Your task to perform on an android device: turn pop-ups on in chrome Image 0: 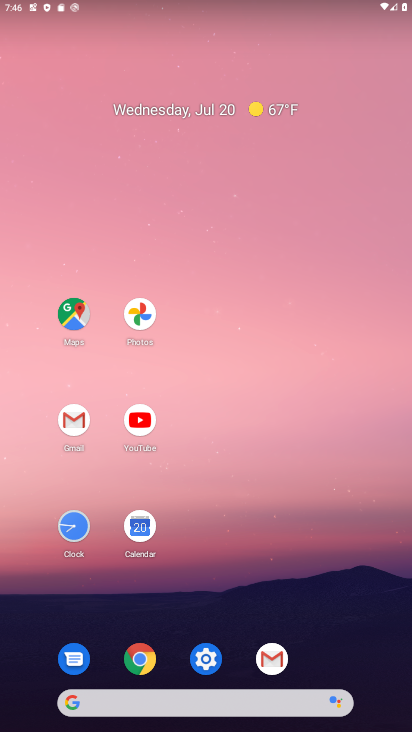
Step 0: click (145, 656)
Your task to perform on an android device: turn pop-ups on in chrome Image 1: 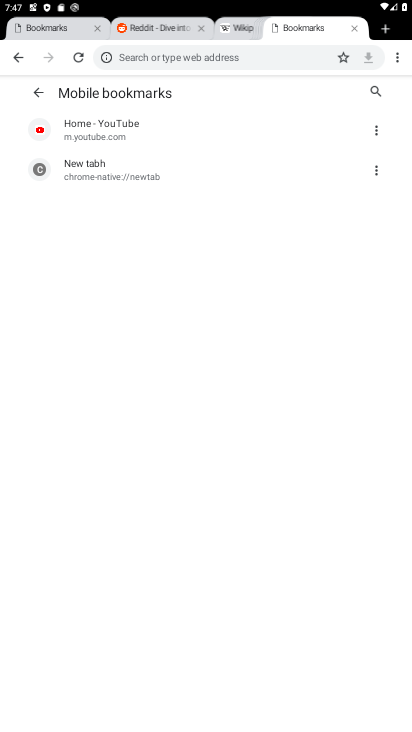
Step 1: click (395, 58)
Your task to perform on an android device: turn pop-ups on in chrome Image 2: 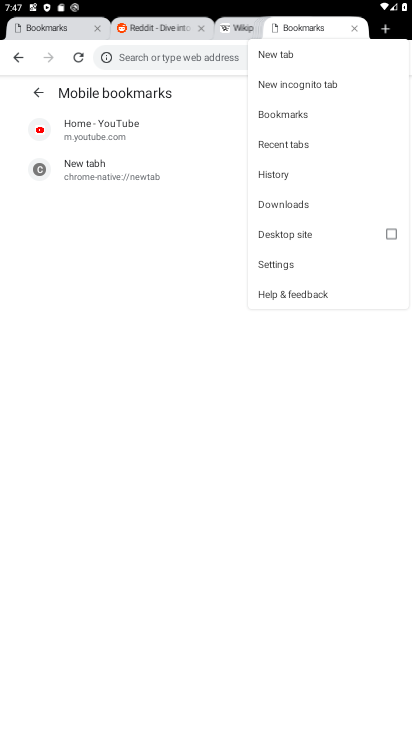
Step 2: click (280, 262)
Your task to perform on an android device: turn pop-ups on in chrome Image 3: 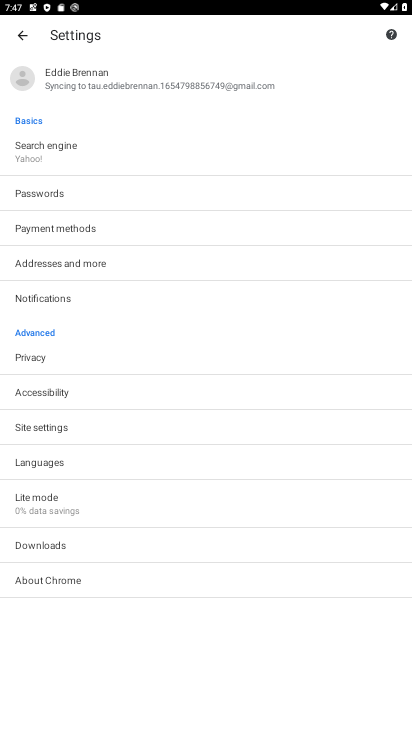
Step 3: click (64, 424)
Your task to perform on an android device: turn pop-ups on in chrome Image 4: 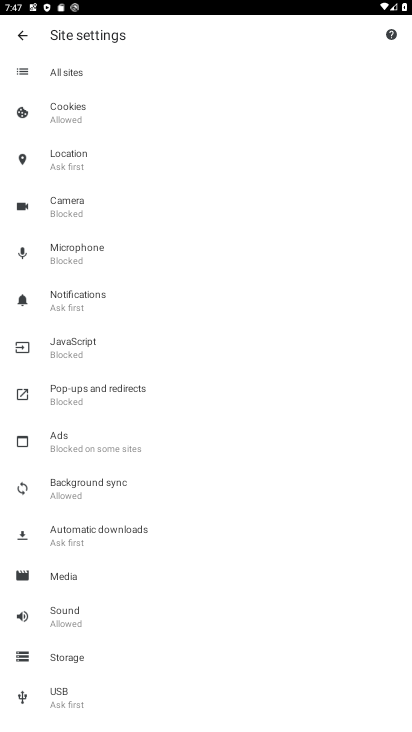
Step 4: click (94, 408)
Your task to perform on an android device: turn pop-ups on in chrome Image 5: 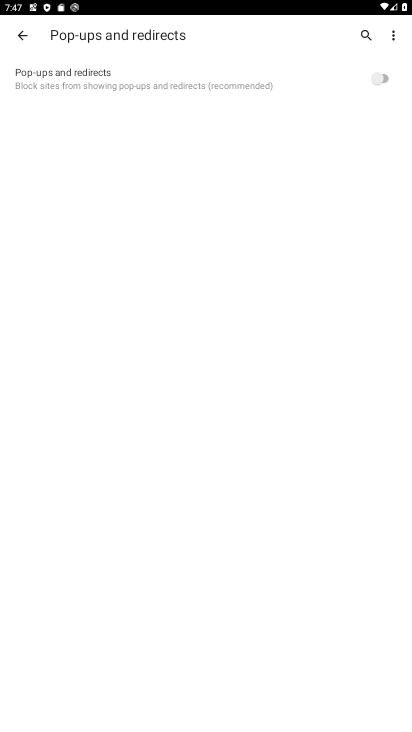
Step 5: click (376, 79)
Your task to perform on an android device: turn pop-ups on in chrome Image 6: 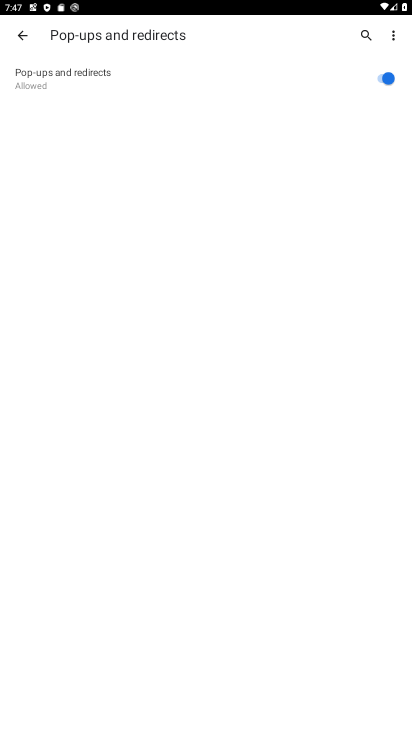
Step 6: task complete